Your task to perform on an android device: Open the Play Movies app and select the watchlist tab. Image 0: 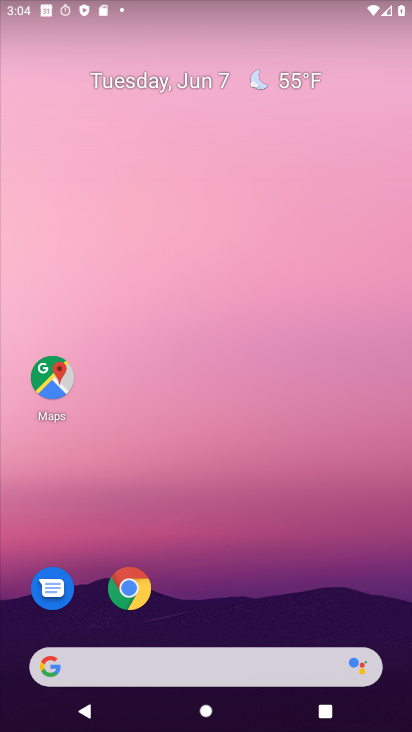
Step 0: press home button
Your task to perform on an android device: Open the Play Movies app and select the watchlist tab. Image 1: 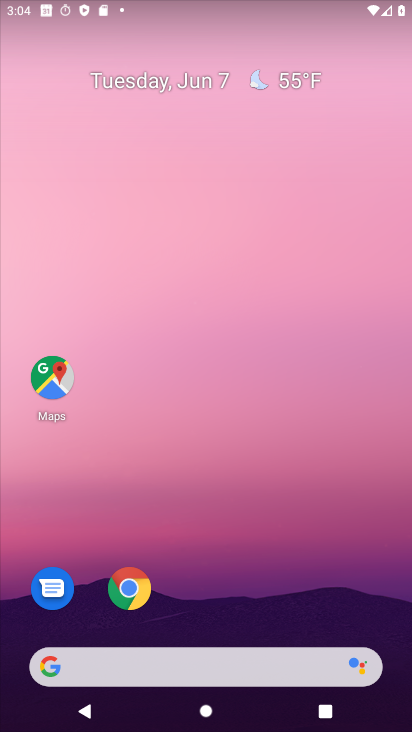
Step 1: drag from (227, 622) to (276, 199)
Your task to perform on an android device: Open the Play Movies app and select the watchlist tab. Image 2: 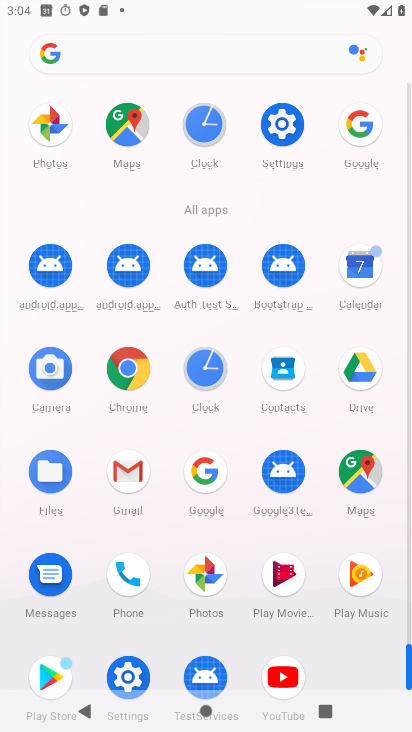
Step 2: click (279, 578)
Your task to perform on an android device: Open the Play Movies app and select the watchlist tab. Image 3: 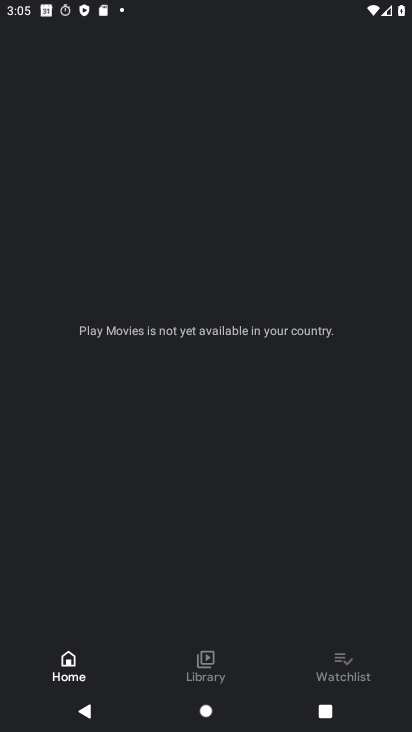
Step 3: click (345, 665)
Your task to perform on an android device: Open the Play Movies app and select the watchlist tab. Image 4: 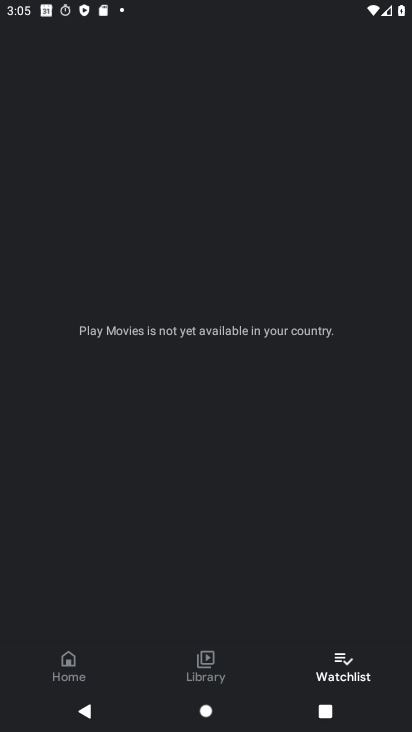
Step 4: task complete